Your task to perform on an android device: make emails show in primary in the gmail app Image 0: 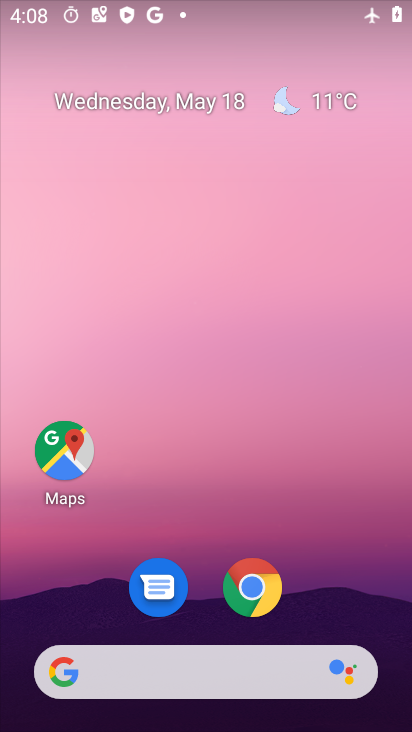
Step 0: drag from (237, 513) to (243, 284)
Your task to perform on an android device: make emails show in primary in the gmail app Image 1: 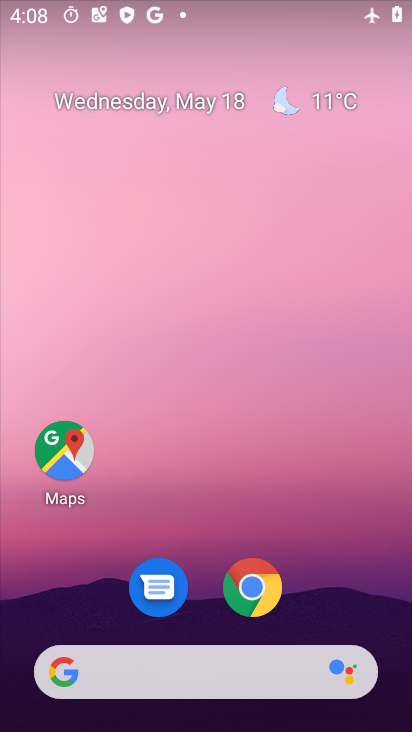
Step 1: drag from (222, 449) to (224, 253)
Your task to perform on an android device: make emails show in primary in the gmail app Image 2: 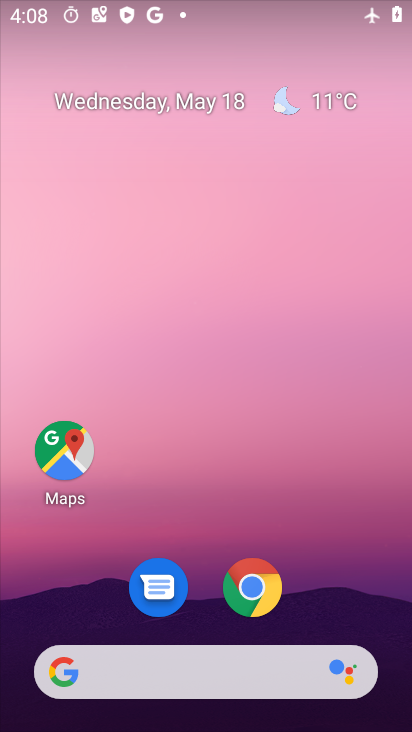
Step 2: drag from (239, 669) to (262, 158)
Your task to perform on an android device: make emails show in primary in the gmail app Image 3: 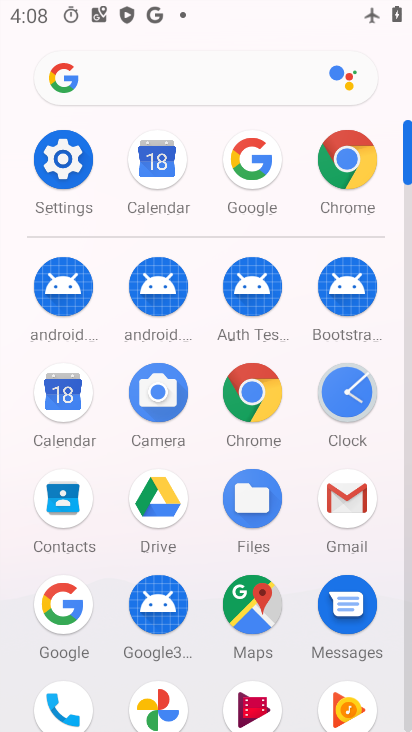
Step 3: click (350, 495)
Your task to perform on an android device: make emails show in primary in the gmail app Image 4: 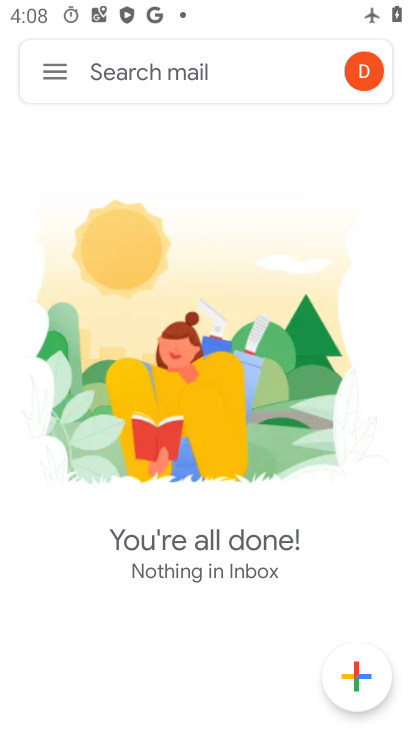
Step 4: click (55, 81)
Your task to perform on an android device: make emails show in primary in the gmail app Image 5: 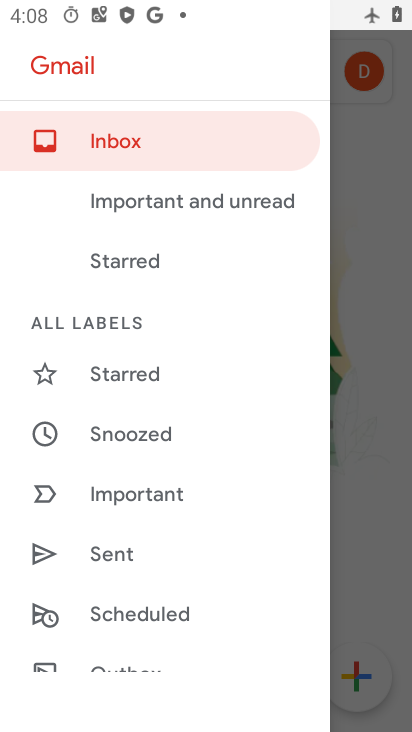
Step 5: drag from (169, 291) to (178, 180)
Your task to perform on an android device: make emails show in primary in the gmail app Image 6: 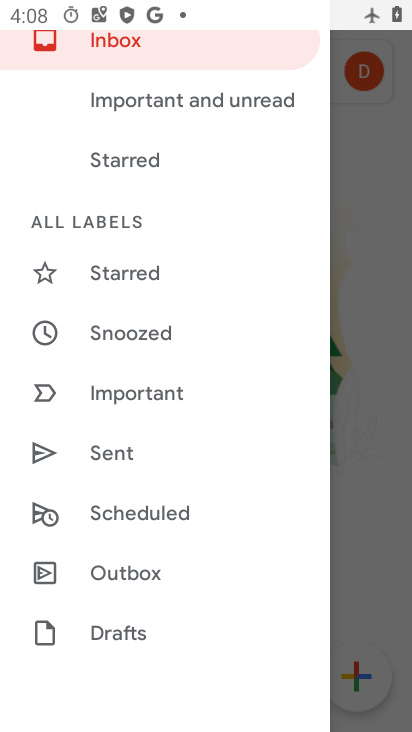
Step 6: drag from (111, 556) to (151, 235)
Your task to perform on an android device: make emails show in primary in the gmail app Image 7: 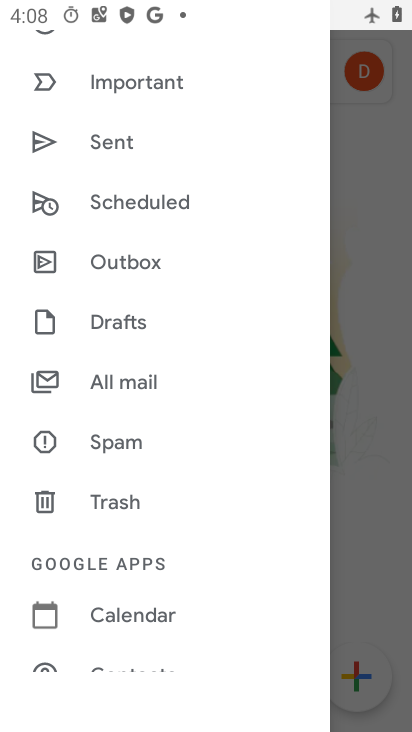
Step 7: drag from (129, 485) to (158, 189)
Your task to perform on an android device: make emails show in primary in the gmail app Image 8: 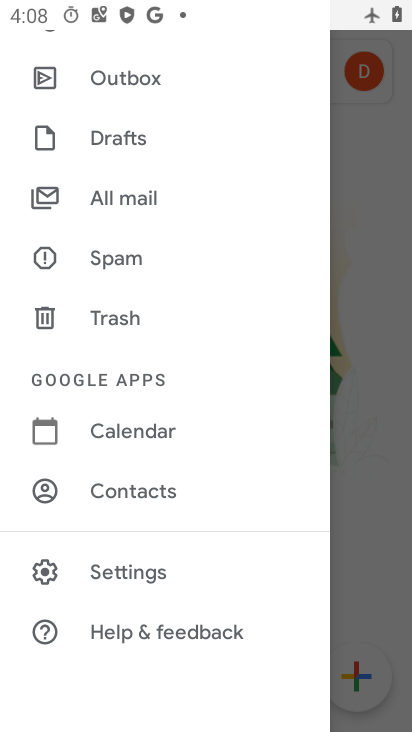
Step 8: click (144, 572)
Your task to perform on an android device: make emails show in primary in the gmail app Image 9: 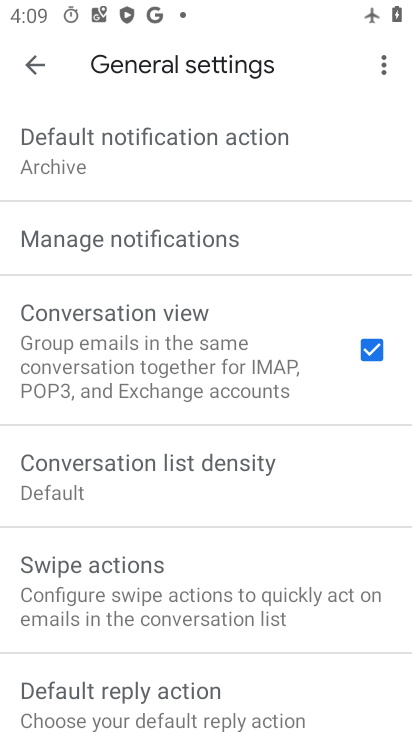
Step 9: task complete